Your task to perform on an android device: When is my next appointment? Image 0: 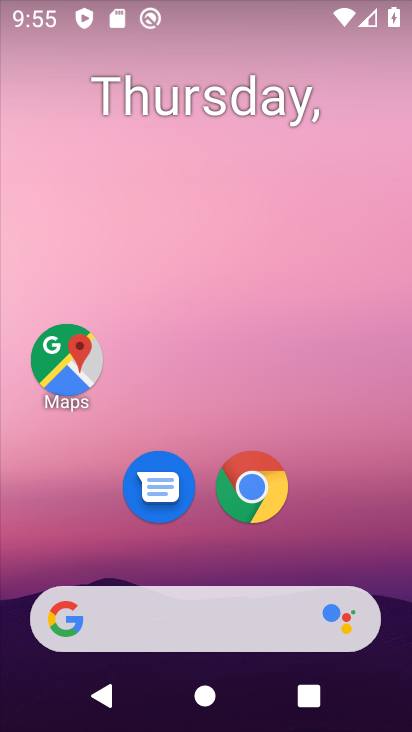
Step 0: drag from (329, 531) to (191, 218)
Your task to perform on an android device: When is my next appointment? Image 1: 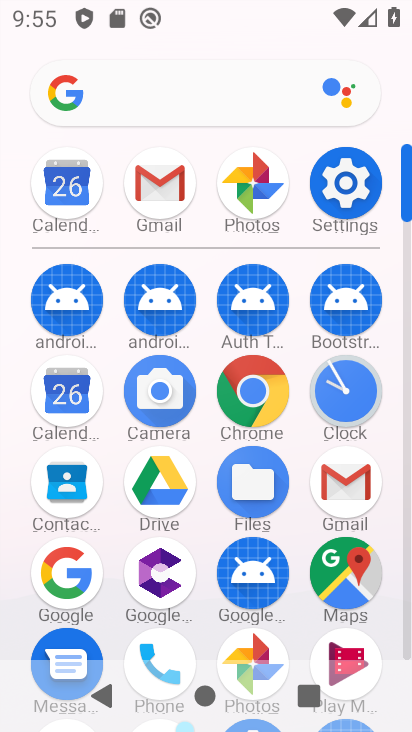
Step 1: click (64, 394)
Your task to perform on an android device: When is my next appointment? Image 2: 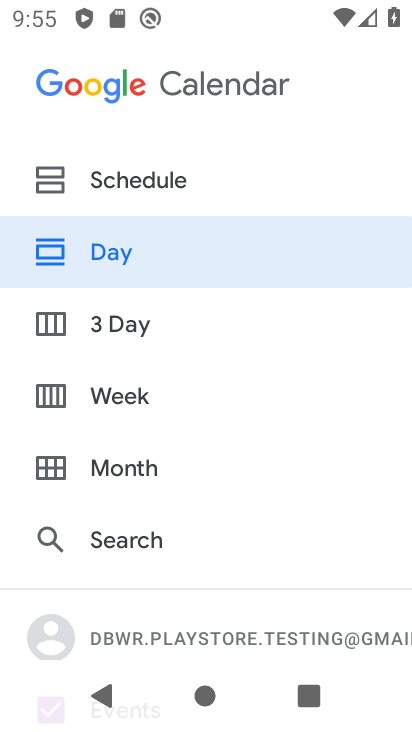
Step 2: click (166, 184)
Your task to perform on an android device: When is my next appointment? Image 3: 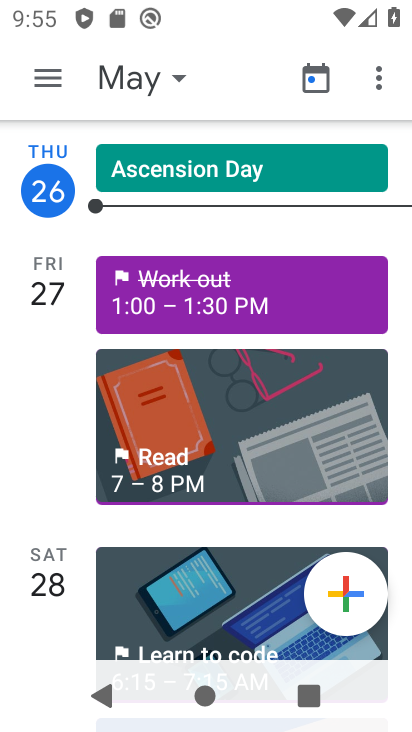
Step 3: click (155, 313)
Your task to perform on an android device: When is my next appointment? Image 4: 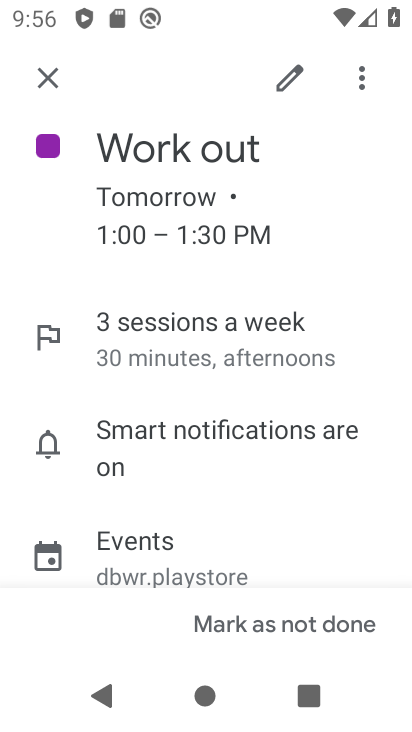
Step 4: click (51, 83)
Your task to perform on an android device: When is my next appointment? Image 5: 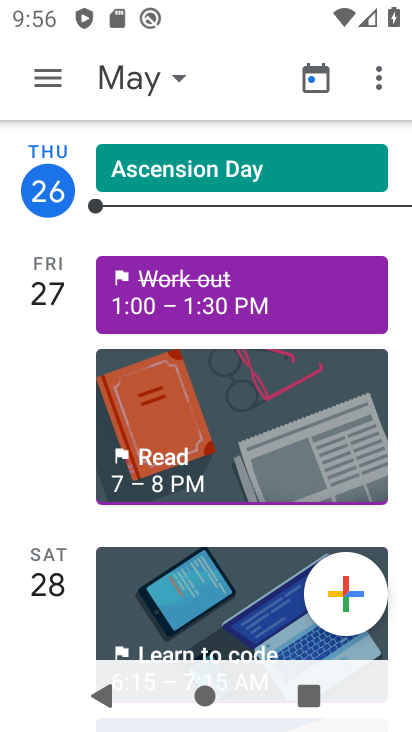
Step 5: click (141, 383)
Your task to perform on an android device: When is my next appointment? Image 6: 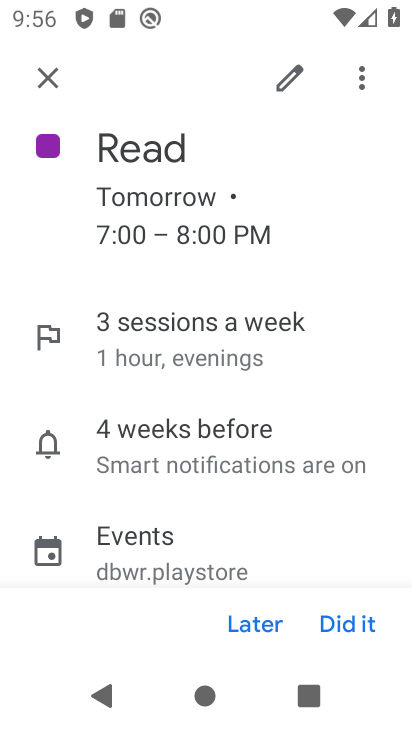
Step 6: press home button
Your task to perform on an android device: When is my next appointment? Image 7: 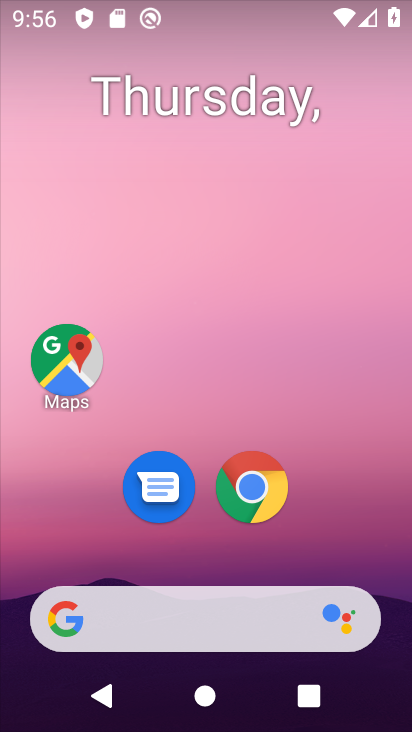
Step 7: drag from (360, 506) to (253, 264)
Your task to perform on an android device: When is my next appointment? Image 8: 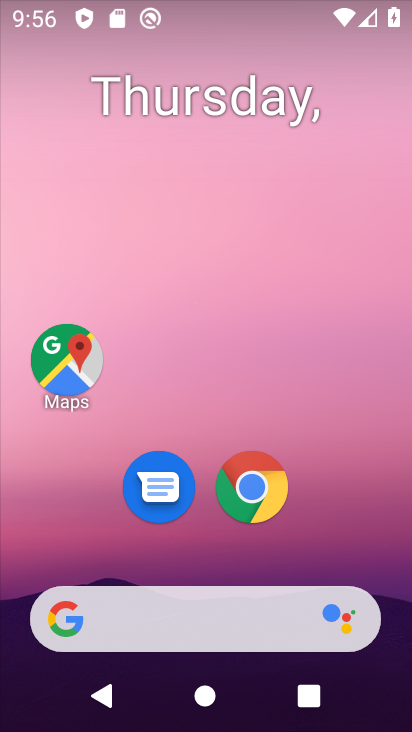
Step 8: drag from (357, 511) to (171, 105)
Your task to perform on an android device: When is my next appointment? Image 9: 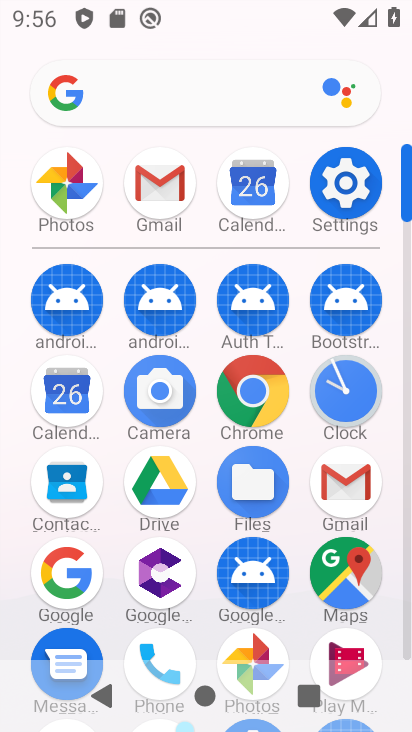
Step 9: click (250, 190)
Your task to perform on an android device: When is my next appointment? Image 10: 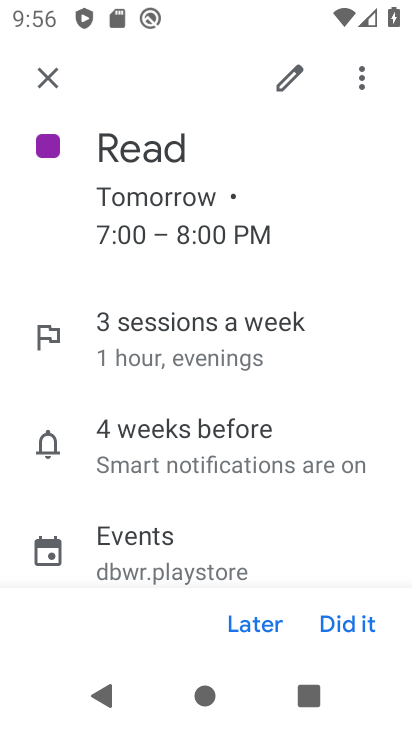
Step 10: task complete